Your task to perform on an android device: change notification settings in the gmail app Image 0: 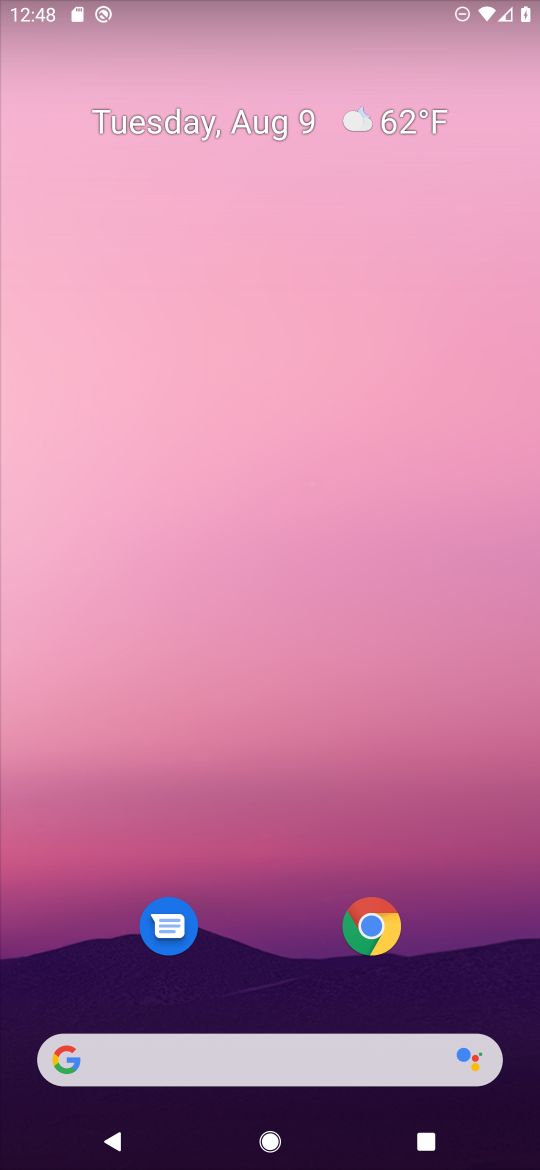
Step 0: drag from (8, 755) to (236, 200)
Your task to perform on an android device: change notification settings in the gmail app Image 1: 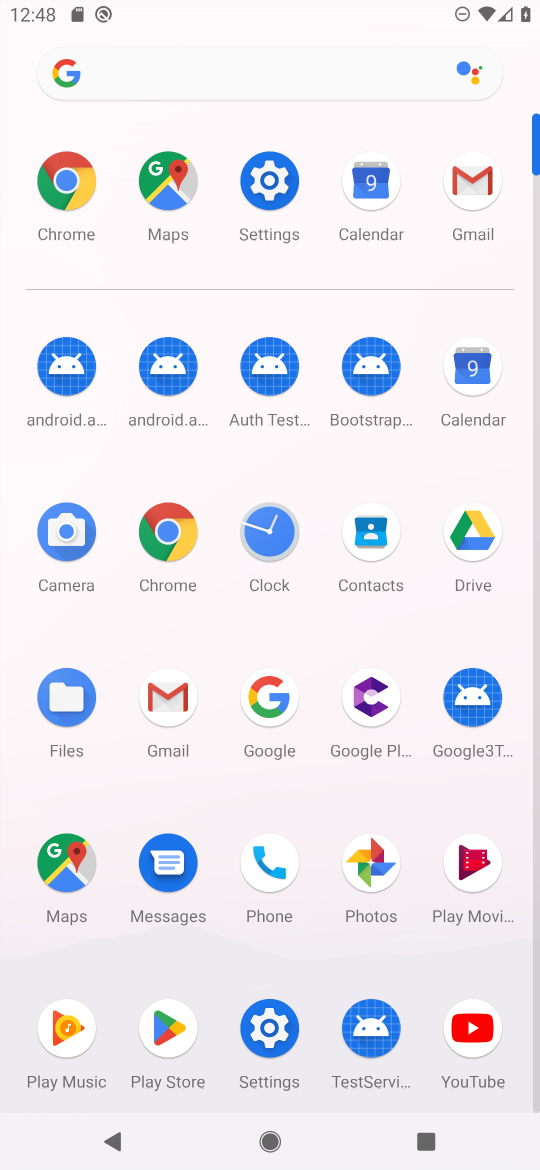
Step 1: click (161, 722)
Your task to perform on an android device: change notification settings in the gmail app Image 2: 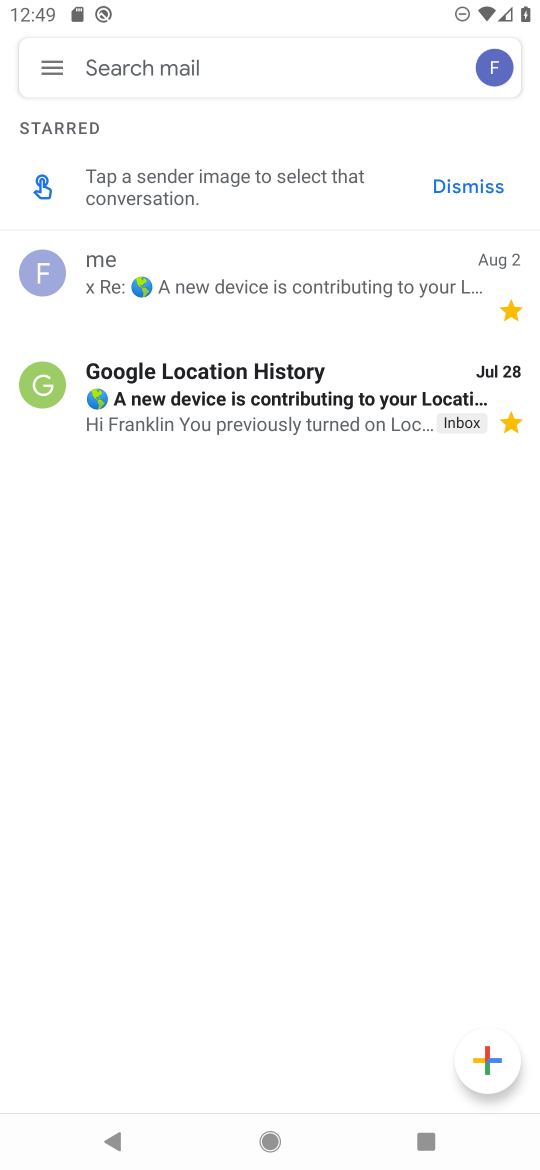
Step 2: click (50, 64)
Your task to perform on an android device: change notification settings in the gmail app Image 3: 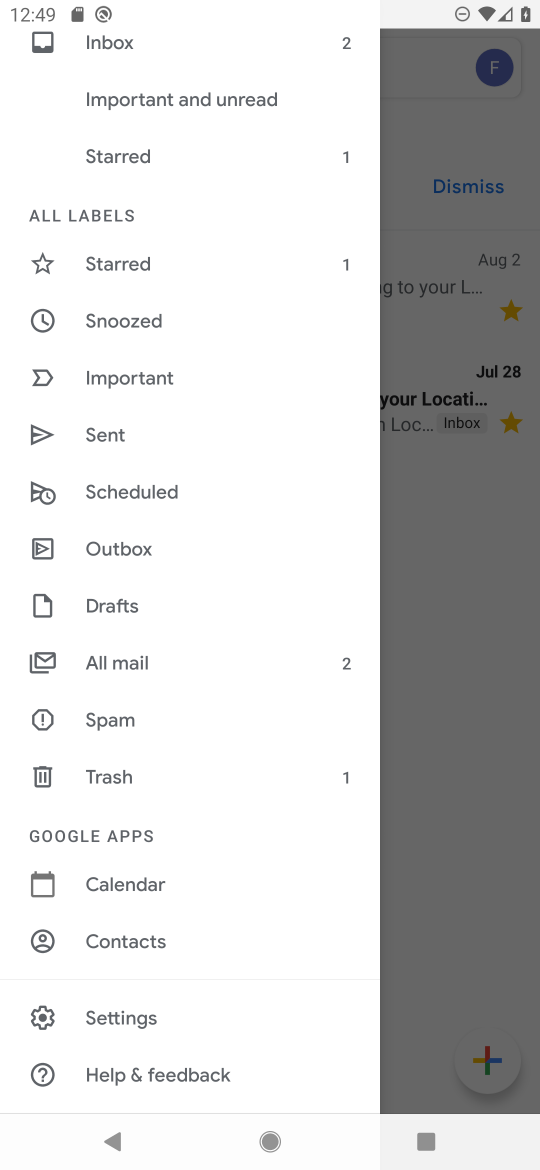
Step 3: click (88, 1011)
Your task to perform on an android device: change notification settings in the gmail app Image 4: 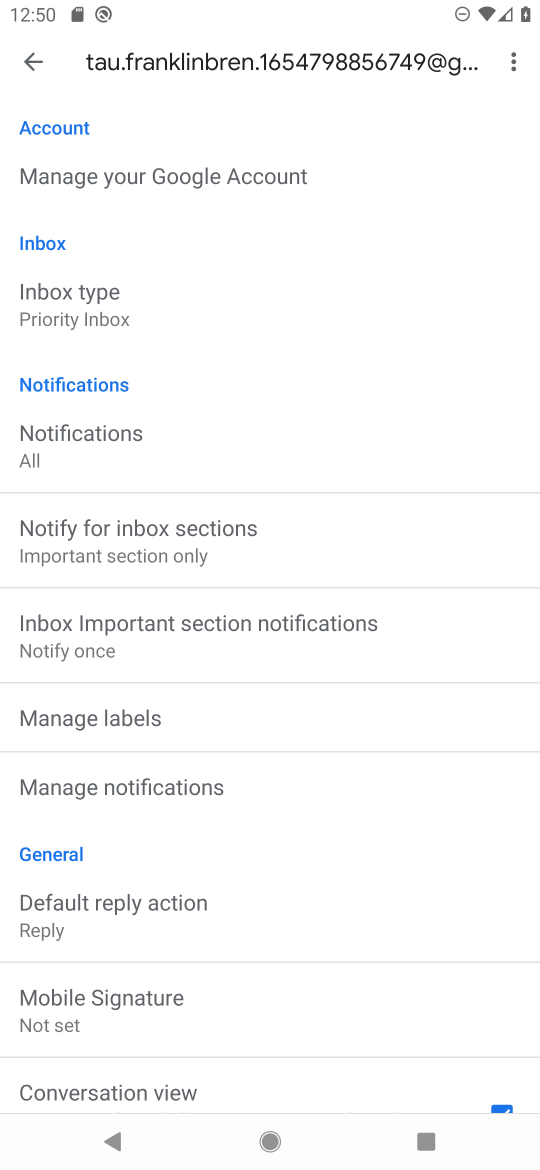
Step 4: task complete